Your task to perform on an android device: When is my next meeting? Image 0: 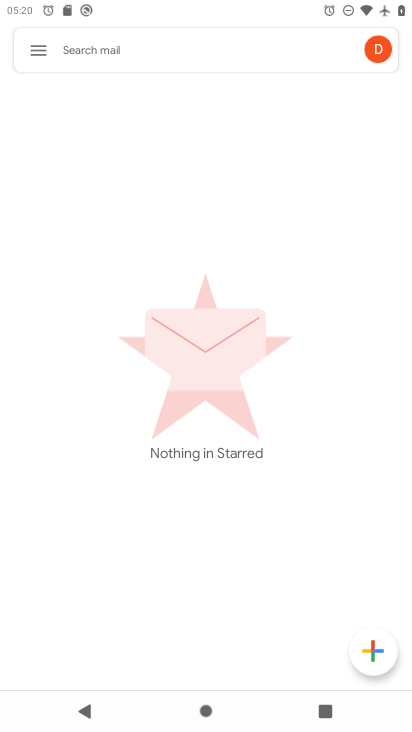
Step 0: press back button
Your task to perform on an android device: When is my next meeting? Image 1: 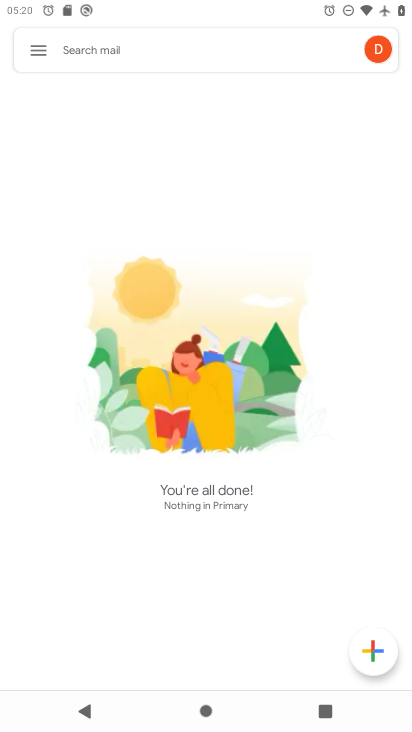
Step 1: press back button
Your task to perform on an android device: When is my next meeting? Image 2: 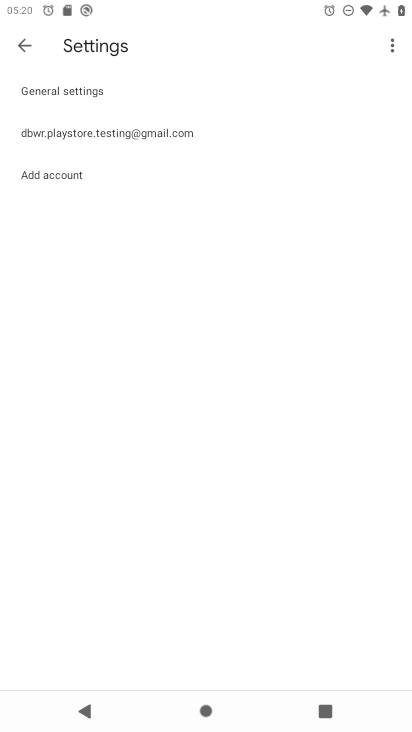
Step 2: press back button
Your task to perform on an android device: When is my next meeting? Image 3: 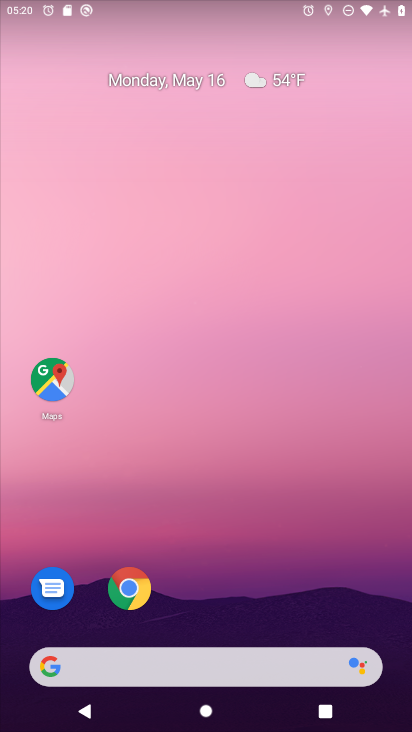
Step 3: drag from (258, 530) to (233, 8)
Your task to perform on an android device: When is my next meeting? Image 4: 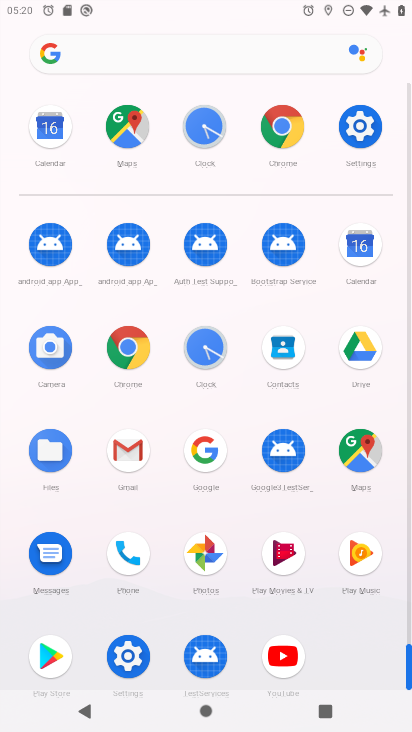
Step 4: click (356, 246)
Your task to perform on an android device: When is my next meeting? Image 5: 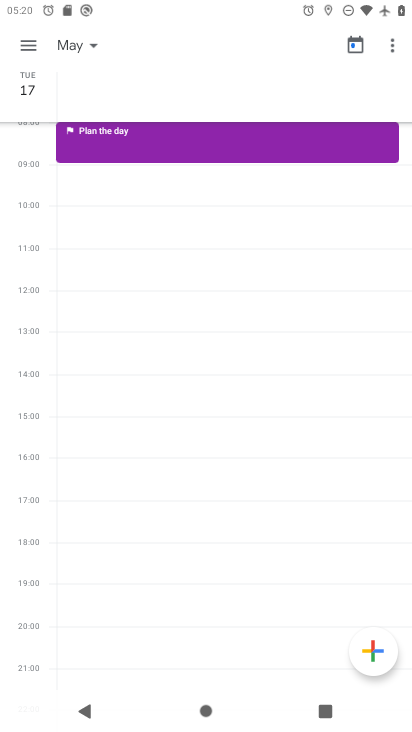
Step 5: click (14, 34)
Your task to perform on an android device: When is my next meeting? Image 6: 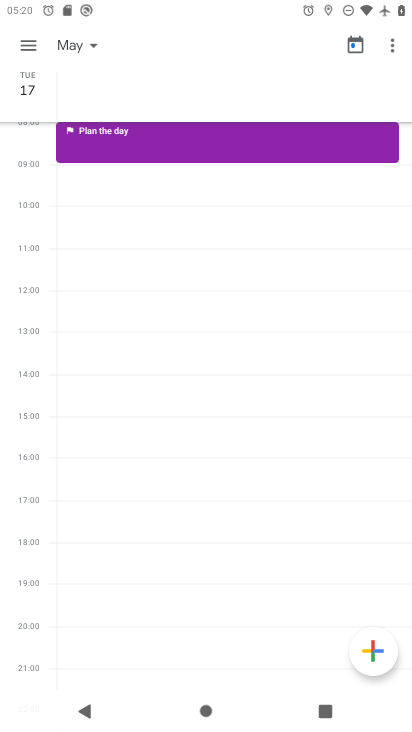
Step 6: click (26, 40)
Your task to perform on an android device: When is my next meeting? Image 7: 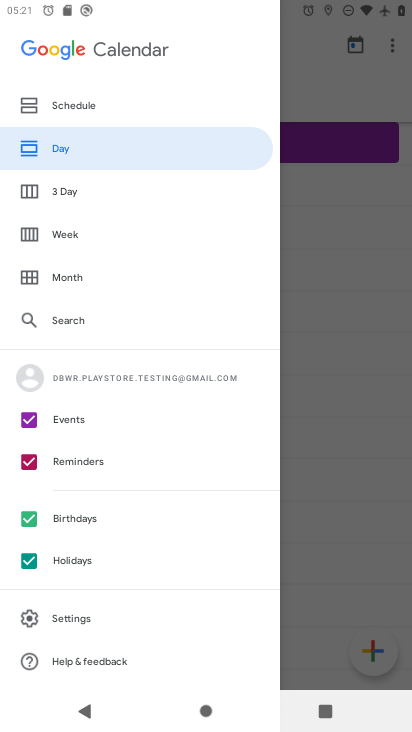
Step 7: click (86, 101)
Your task to perform on an android device: When is my next meeting? Image 8: 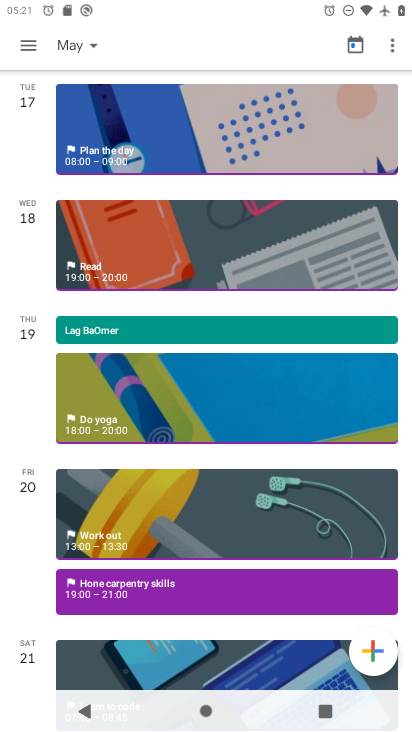
Step 8: task complete